Your task to perform on an android device: When is my next appointment? Image 0: 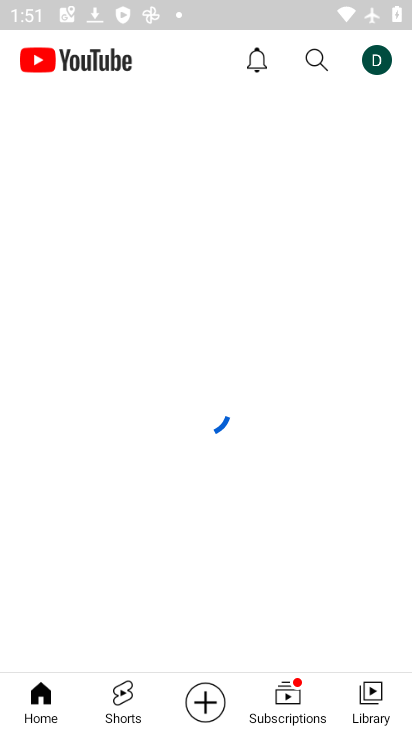
Step 0: press home button
Your task to perform on an android device: When is my next appointment? Image 1: 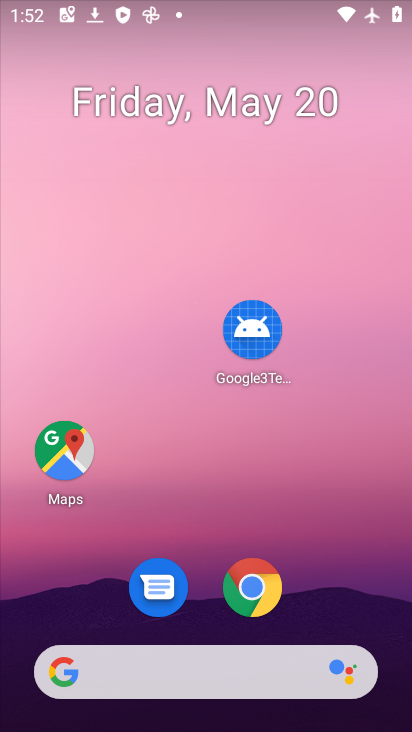
Step 1: drag from (315, 396) to (261, 20)
Your task to perform on an android device: When is my next appointment? Image 2: 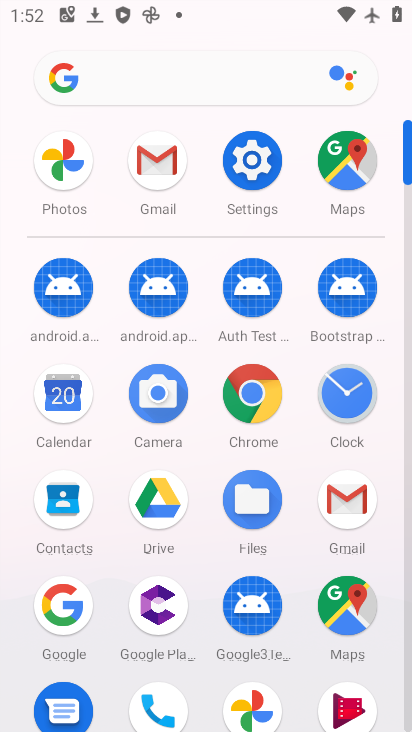
Step 2: click (54, 403)
Your task to perform on an android device: When is my next appointment? Image 3: 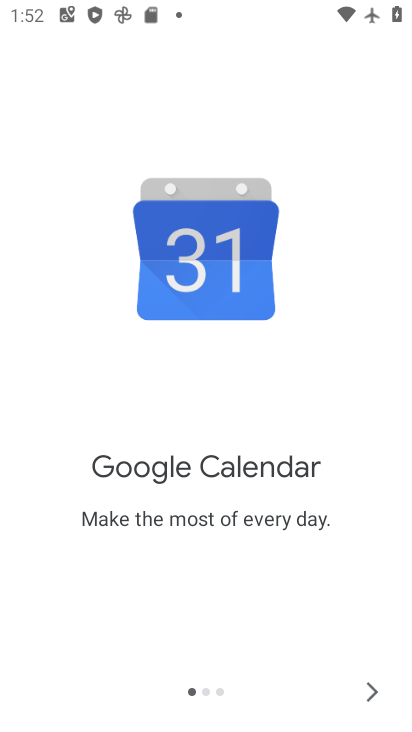
Step 3: click (370, 687)
Your task to perform on an android device: When is my next appointment? Image 4: 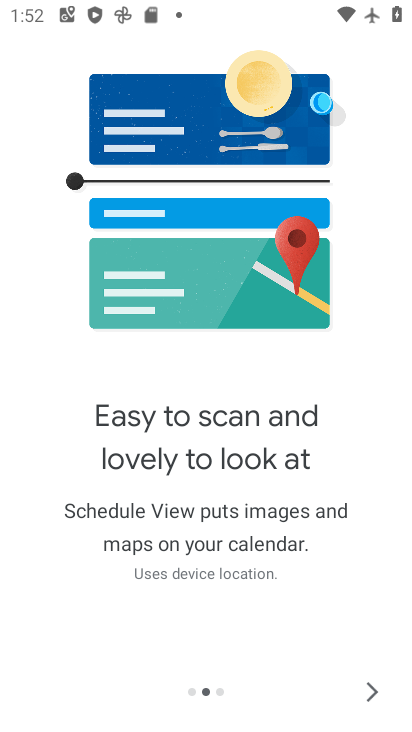
Step 4: click (370, 687)
Your task to perform on an android device: When is my next appointment? Image 5: 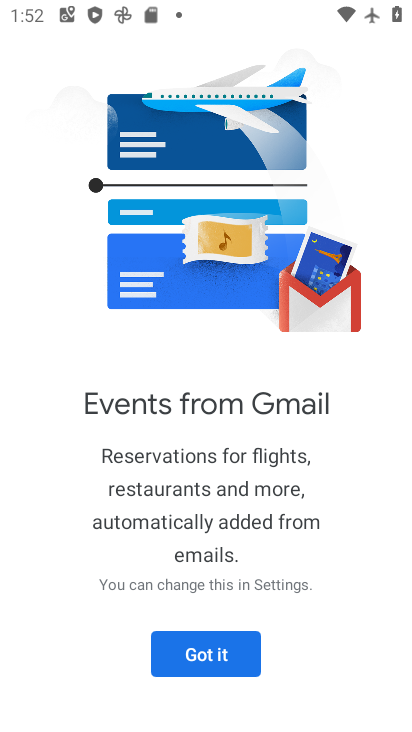
Step 5: click (370, 687)
Your task to perform on an android device: When is my next appointment? Image 6: 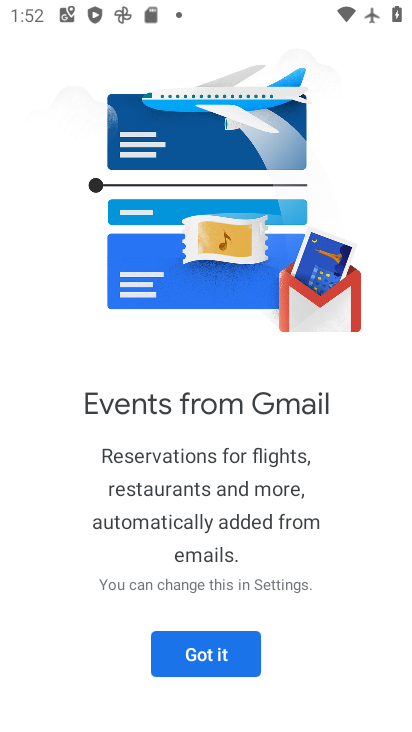
Step 6: click (222, 655)
Your task to perform on an android device: When is my next appointment? Image 7: 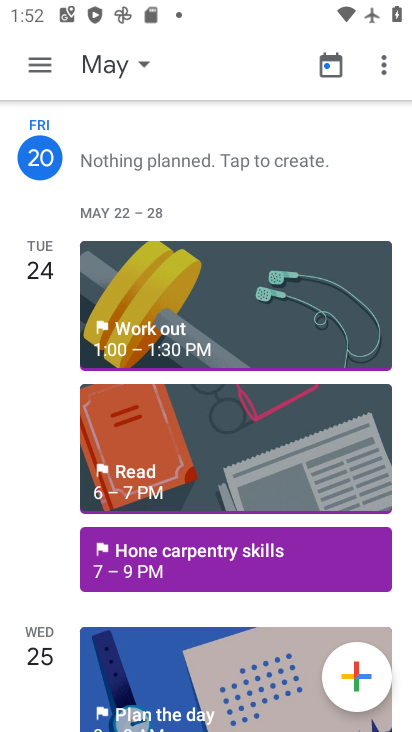
Step 7: click (132, 64)
Your task to perform on an android device: When is my next appointment? Image 8: 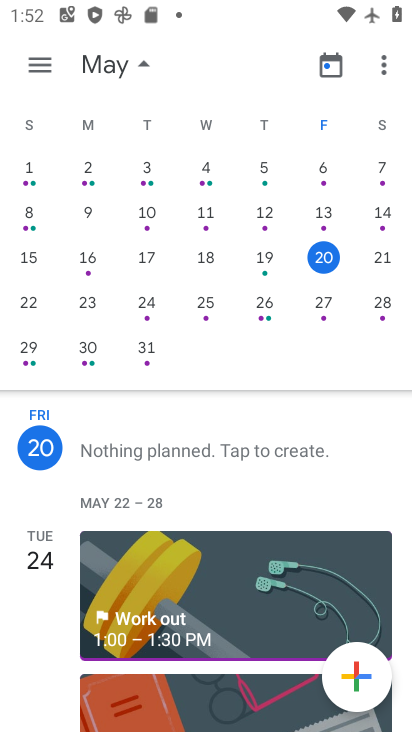
Step 8: click (328, 255)
Your task to perform on an android device: When is my next appointment? Image 9: 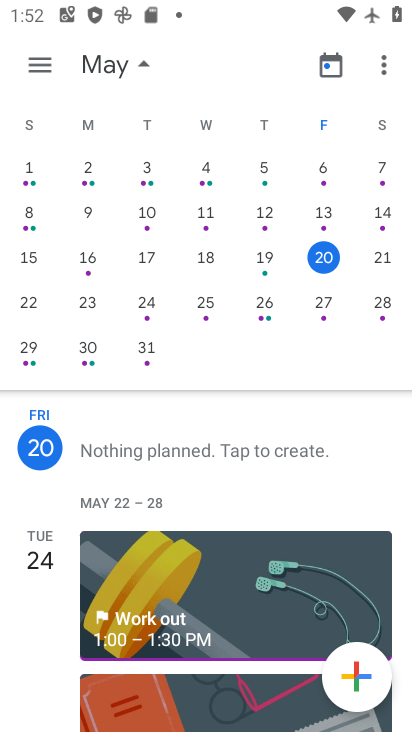
Step 9: click (36, 62)
Your task to perform on an android device: When is my next appointment? Image 10: 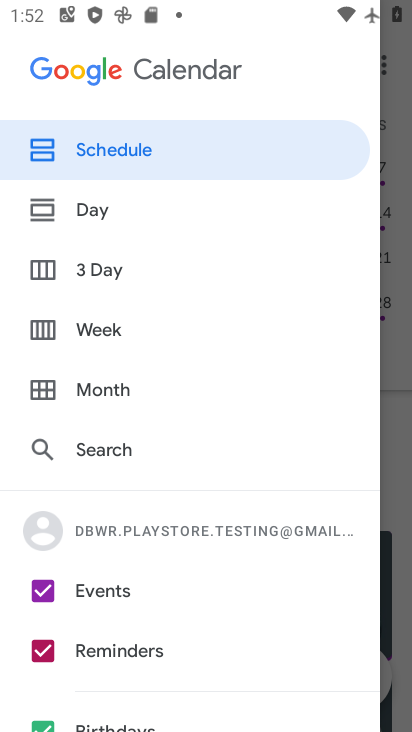
Step 10: click (102, 212)
Your task to perform on an android device: When is my next appointment? Image 11: 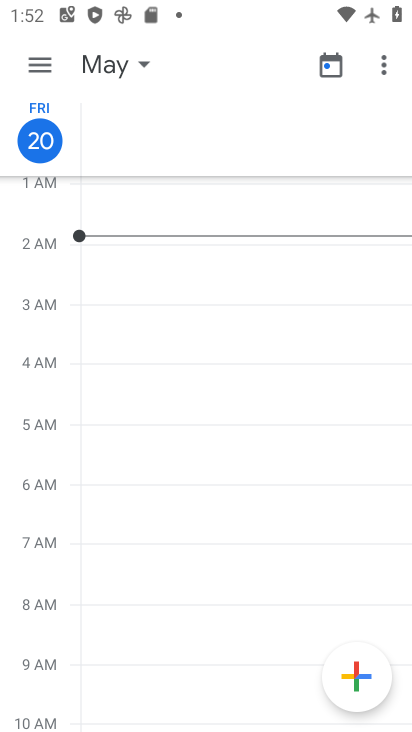
Step 11: task complete